Your task to perform on an android device: star an email in the gmail app Image 0: 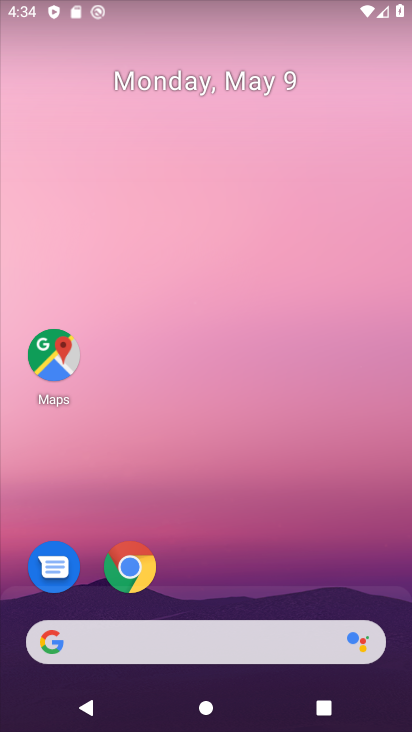
Step 0: drag from (303, 573) to (297, 139)
Your task to perform on an android device: star an email in the gmail app Image 1: 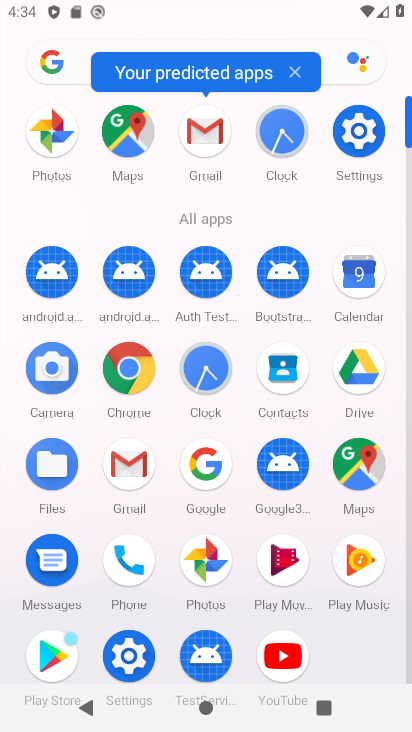
Step 1: click (209, 130)
Your task to perform on an android device: star an email in the gmail app Image 2: 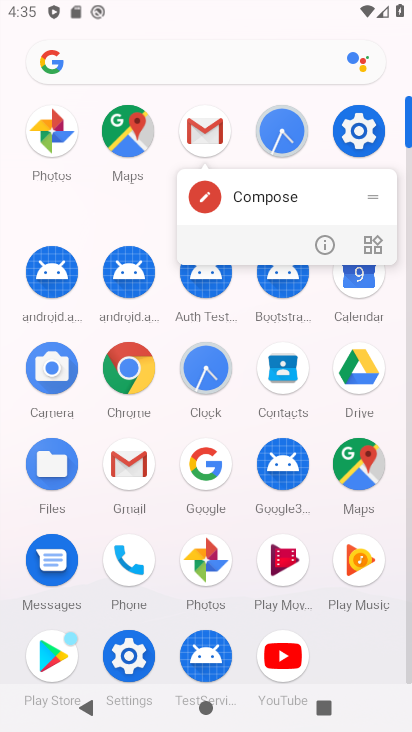
Step 2: click (205, 149)
Your task to perform on an android device: star an email in the gmail app Image 3: 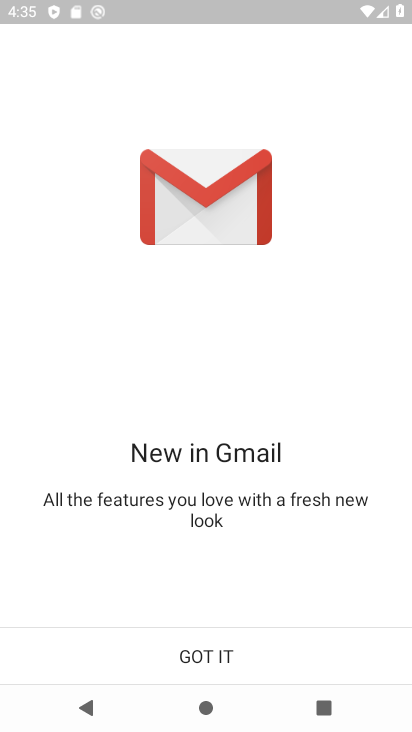
Step 3: click (218, 642)
Your task to perform on an android device: star an email in the gmail app Image 4: 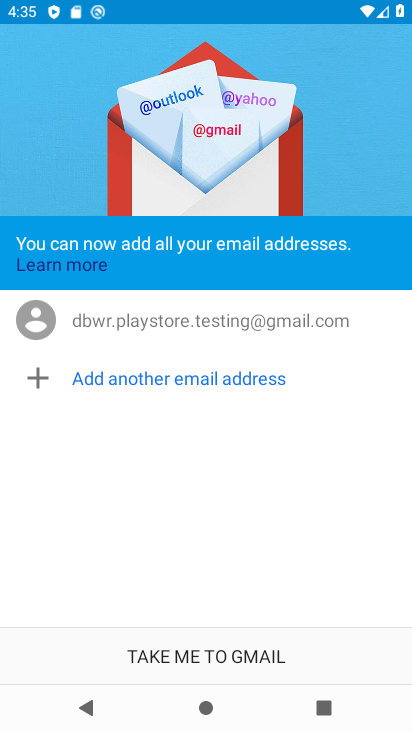
Step 4: click (255, 641)
Your task to perform on an android device: star an email in the gmail app Image 5: 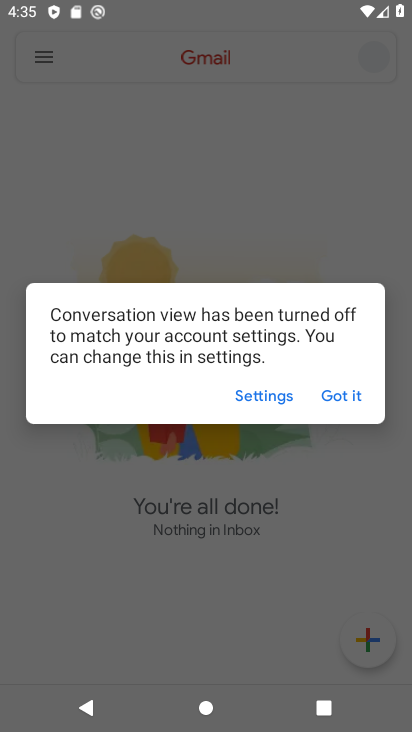
Step 5: click (341, 405)
Your task to perform on an android device: star an email in the gmail app Image 6: 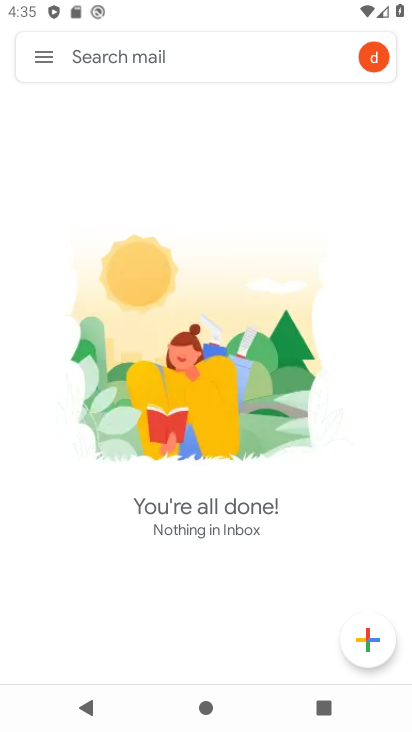
Step 6: click (39, 56)
Your task to perform on an android device: star an email in the gmail app Image 7: 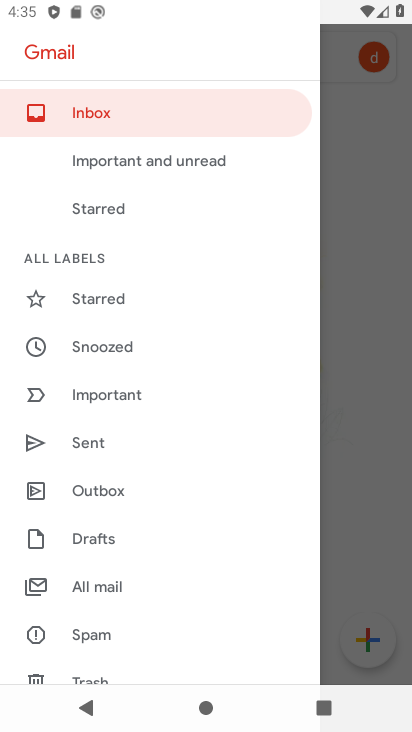
Step 7: click (129, 594)
Your task to perform on an android device: star an email in the gmail app Image 8: 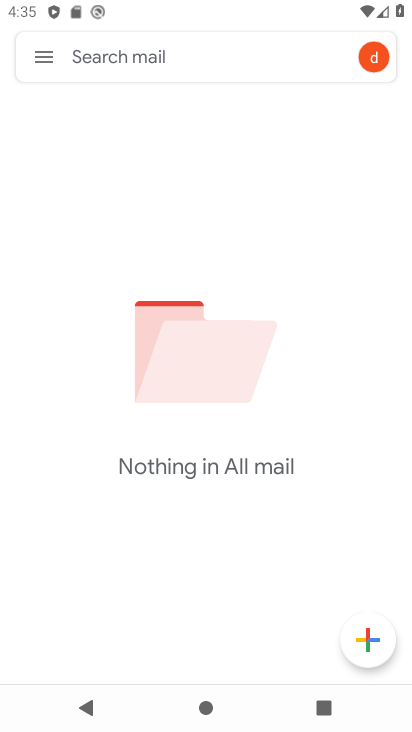
Step 8: task complete